Your task to perform on an android device: Open Google Maps and go to "Timeline" Image 0: 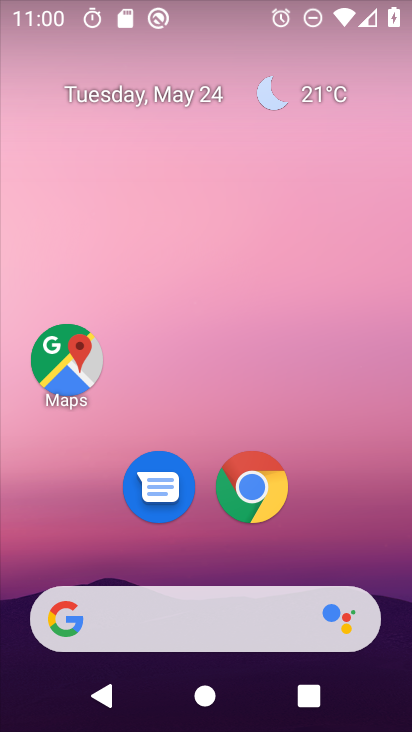
Step 0: click (67, 361)
Your task to perform on an android device: Open Google Maps and go to "Timeline" Image 1: 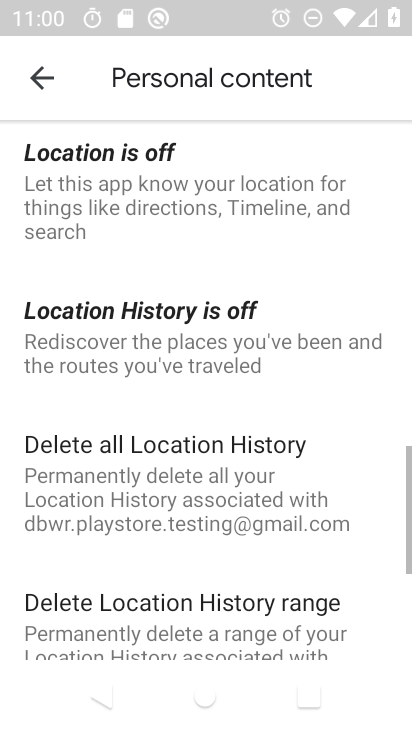
Step 1: click (38, 75)
Your task to perform on an android device: Open Google Maps and go to "Timeline" Image 2: 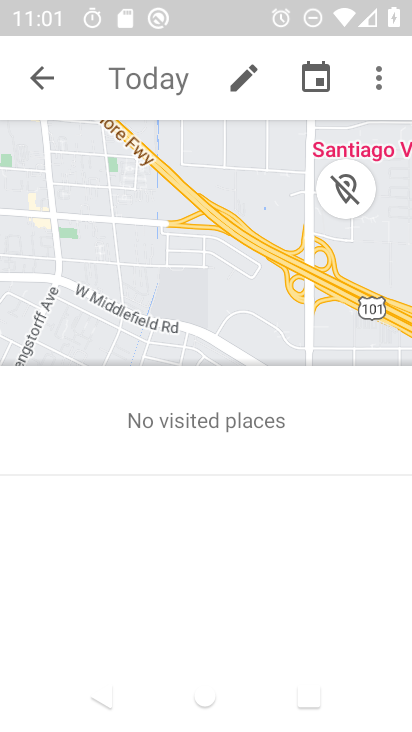
Step 2: task complete